Your task to perform on an android device: Empty the shopping cart on walmart. Add "apple airpods" to the cart on walmart Image 0: 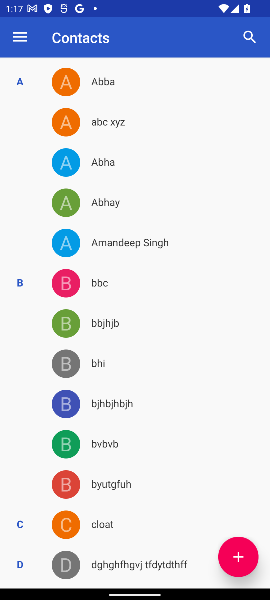
Step 0: press home button
Your task to perform on an android device: Empty the shopping cart on walmart. Add "apple airpods" to the cart on walmart Image 1: 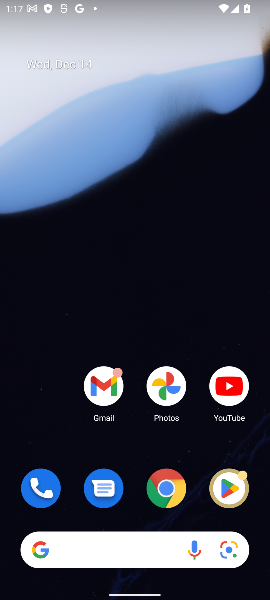
Step 1: drag from (148, 537) to (187, 195)
Your task to perform on an android device: Empty the shopping cart on walmart. Add "apple airpods" to the cart on walmart Image 2: 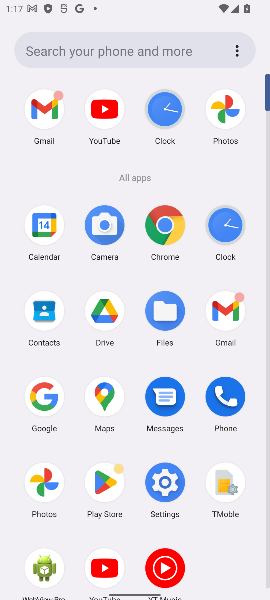
Step 2: click (50, 394)
Your task to perform on an android device: Empty the shopping cart on walmart. Add "apple airpods" to the cart on walmart Image 3: 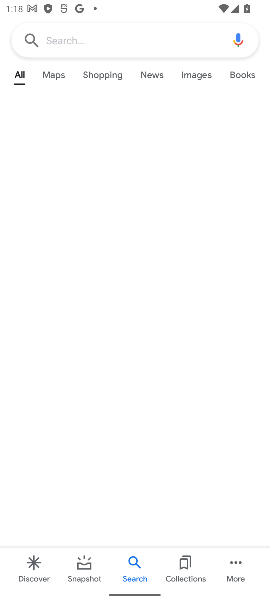
Step 3: click (122, 43)
Your task to perform on an android device: Empty the shopping cart on walmart. Add "apple airpods" to the cart on walmart Image 4: 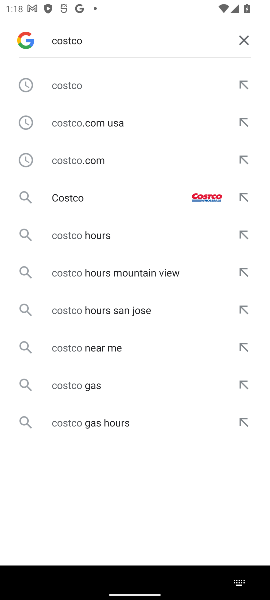
Step 4: click (244, 44)
Your task to perform on an android device: Empty the shopping cart on walmart. Add "apple airpods" to the cart on walmart Image 5: 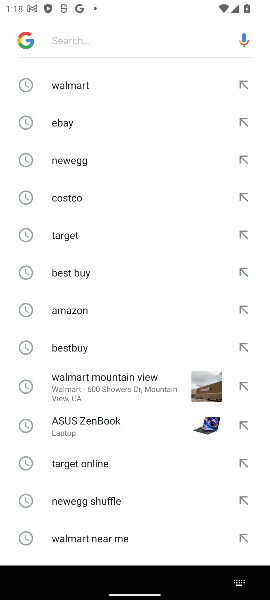
Step 5: click (58, 86)
Your task to perform on an android device: Empty the shopping cart on walmart. Add "apple airpods" to the cart on walmart Image 6: 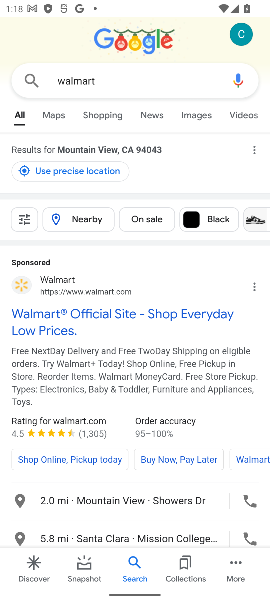
Step 6: click (102, 319)
Your task to perform on an android device: Empty the shopping cart on walmart. Add "apple airpods" to the cart on walmart Image 7: 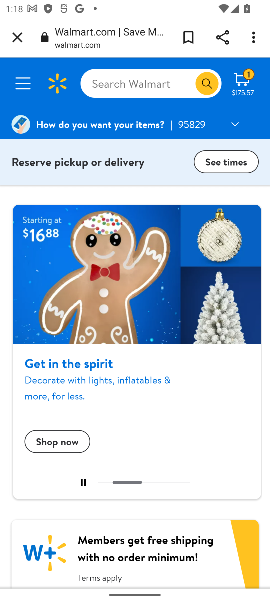
Step 7: click (245, 77)
Your task to perform on an android device: Empty the shopping cart on walmart. Add "apple airpods" to the cart on walmart Image 8: 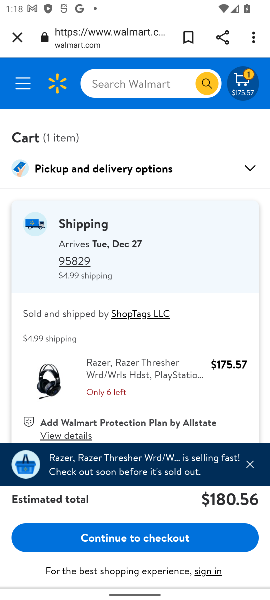
Step 8: drag from (181, 417) to (199, 171)
Your task to perform on an android device: Empty the shopping cart on walmart. Add "apple airpods" to the cart on walmart Image 9: 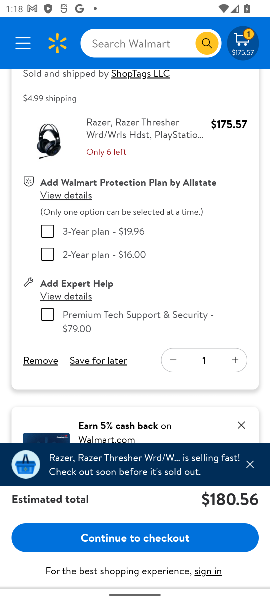
Step 9: click (40, 362)
Your task to perform on an android device: Empty the shopping cart on walmart. Add "apple airpods" to the cart on walmart Image 10: 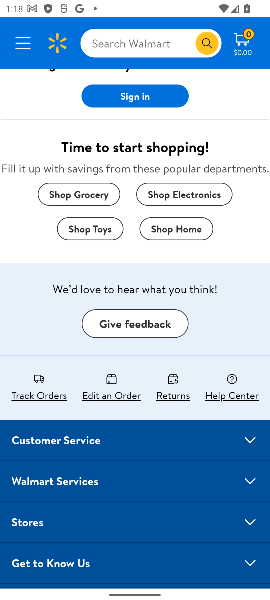
Step 10: click (120, 38)
Your task to perform on an android device: Empty the shopping cart on walmart. Add "apple airpods" to the cart on walmart Image 11: 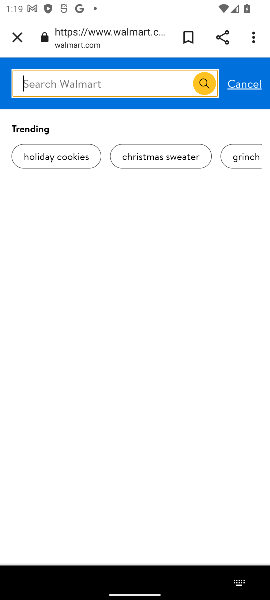
Step 11: type "apple airpods"
Your task to perform on an android device: Empty the shopping cart on walmart. Add "apple airpods" to the cart on walmart Image 12: 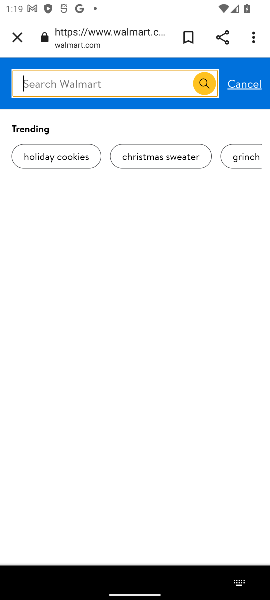
Step 12: click (207, 83)
Your task to perform on an android device: Empty the shopping cart on walmart. Add "apple airpods" to the cart on walmart Image 13: 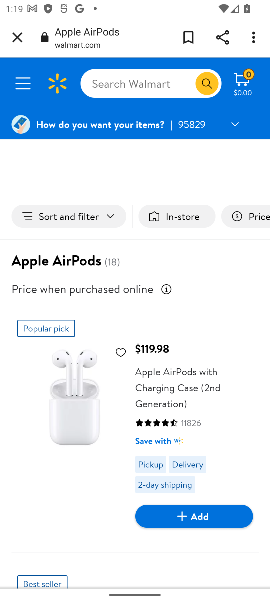
Step 13: click (197, 521)
Your task to perform on an android device: Empty the shopping cart on walmart. Add "apple airpods" to the cart on walmart Image 14: 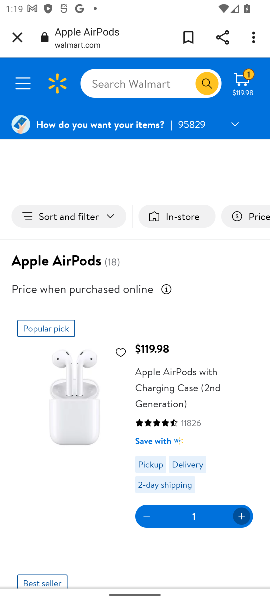
Step 14: click (240, 78)
Your task to perform on an android device: Empty the shopping cart on walmart. Add "apple airpods" to the cart on walmart Image 15: 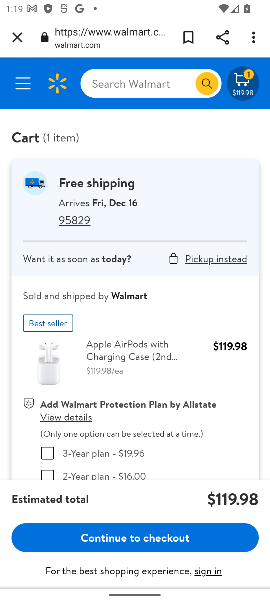
Step 15: click (137, 542)
Your task to perform on an android device: Empty the shopping cart on walmart. Add "apple airpods" to the cart on walmart Image 16: 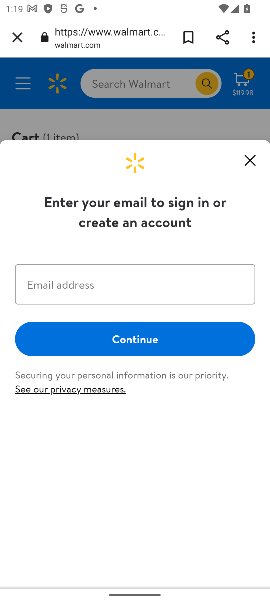
Step 16: task complete